Your task to perform on an android device: change keyboard looks Image 0: 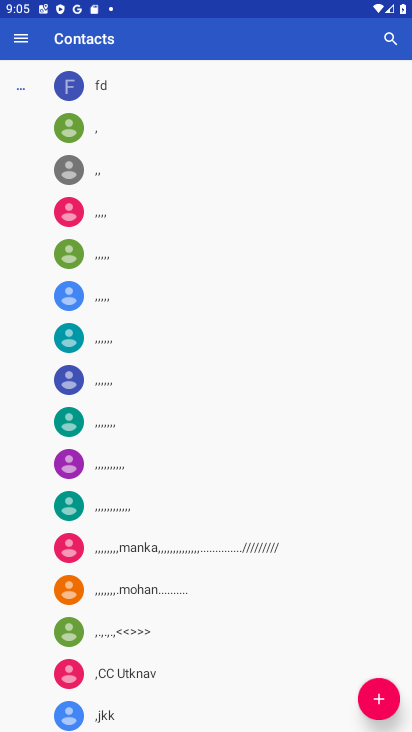
Step 0: press home button
Your task to perform on an android device: change keyboard looks Image 1: 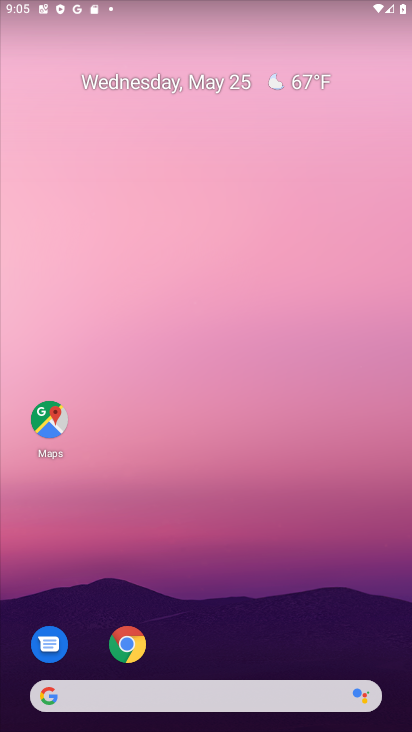
Step 1: drag from (207, 662) to (232, 0)
Your task to perform on an android device: change keyboard looks Image 2: 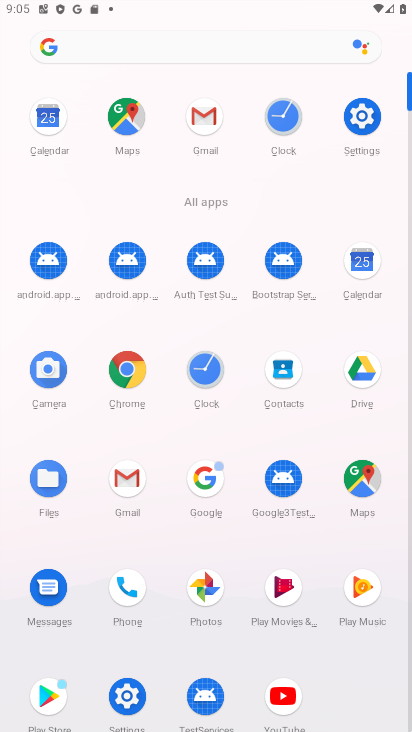
Step 2: click (358, 109)
Your task to perform on an android device: change keyboard looks Image 3: 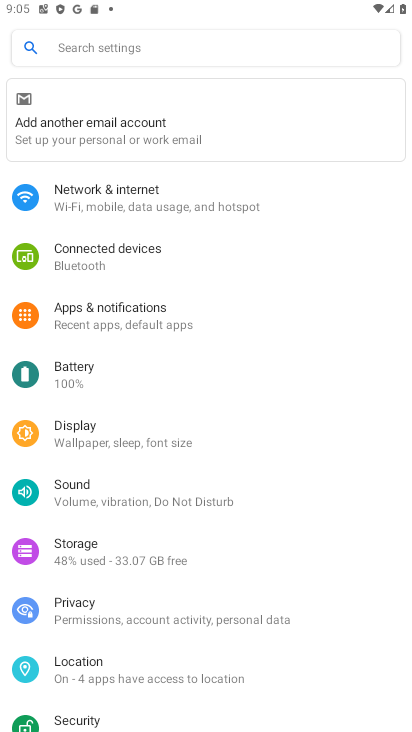
Step 3: drag from (122, 693) to (132, 69)
Your task to perform on an android device: change keyboard looks Image 4: 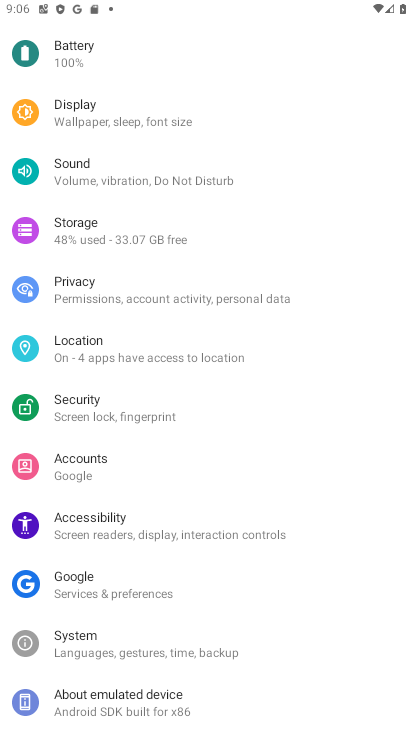
Step 4: click (113, 637)
Your task to perform on an android device: change keyboard looks Image 5: 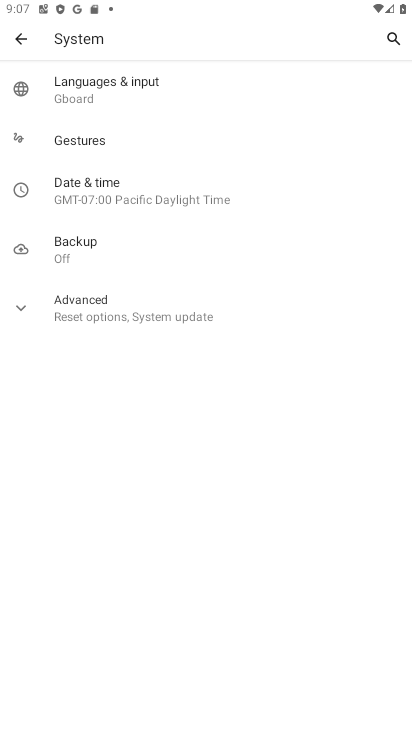
Step 5: click (40, 307)
Your task to perform on an android device: change keyboard looks Image 6: 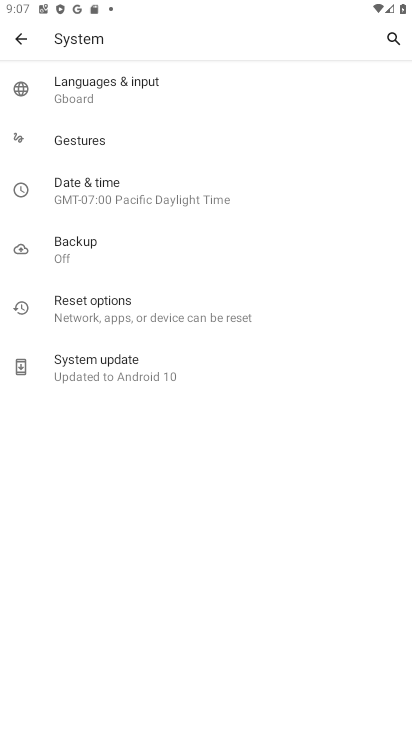
Step 6: click (108, 91)
Your task to perform on an android device: change keyboard looks Image 7: 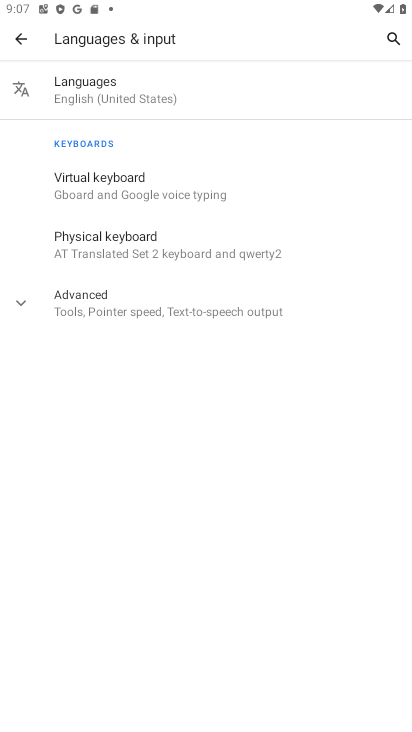
Step 7: click (74, 301)
Your task to perform on an android device: change keyboard looks Image 8: 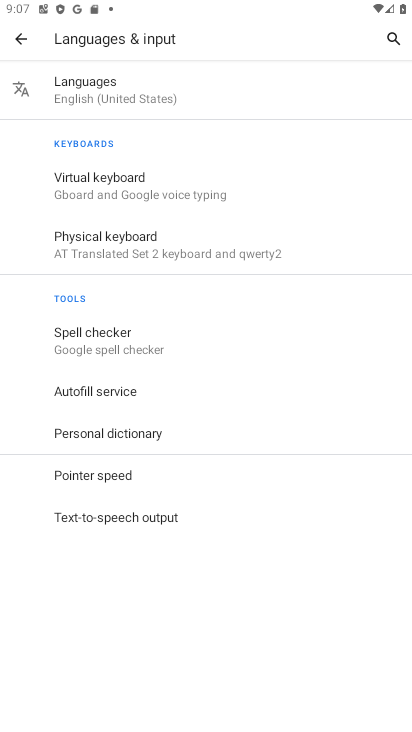
Step 8: click (147, 181)
Your task to perform on an android device: change keyboard looks Image 9: 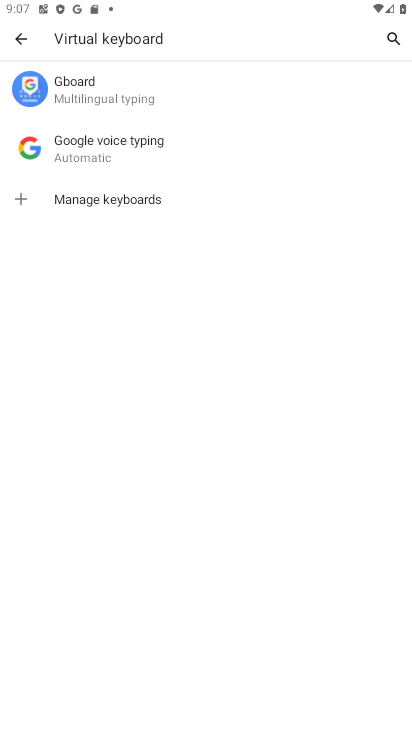
Step 9: click (101, 79)
Your task to perform on an android device: change keyboard looks Image 10: 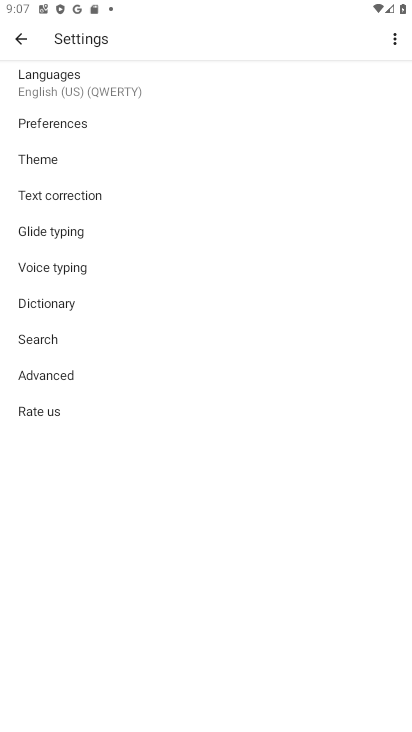
Step 10: click (68, 153)
Your task to perform on an android device: change keyboard looks Image 11: 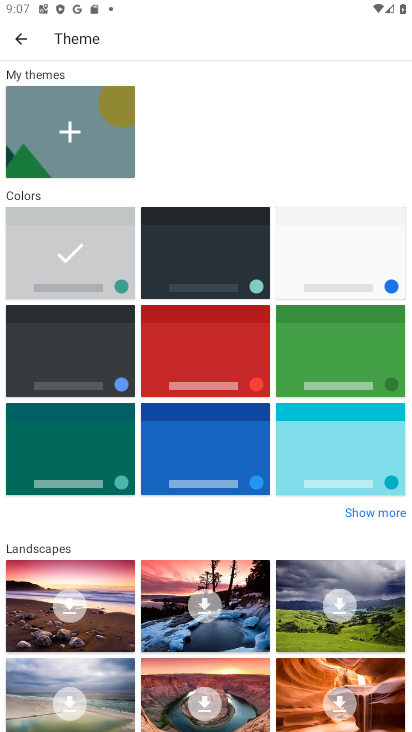
Step 11: click (351, 356)
Your task to perform on an android device: change keyboard looks Image 12: 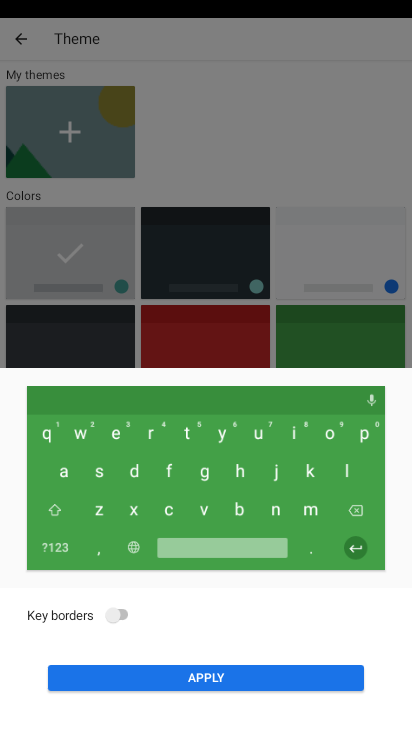
Step 12: click (209, 675)
Your task to perform on an android device: change keyboard looks Image 13: 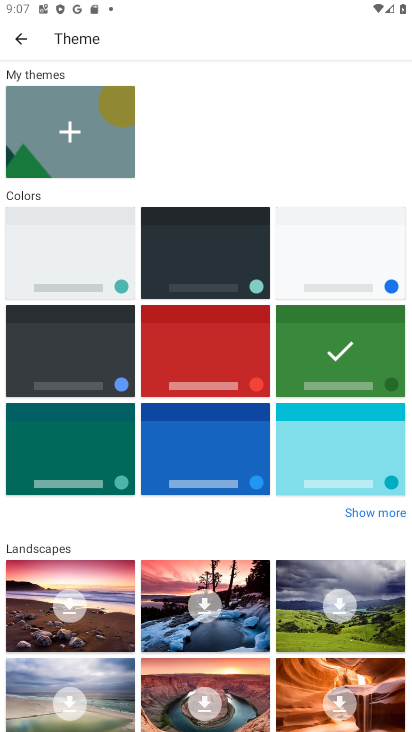
Step 13: task complete